Your task to perform on an android device: turn off improve location accuracy Image 0: 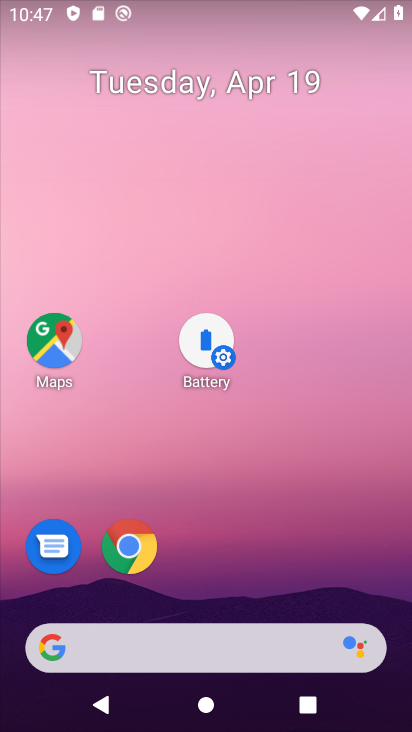
Step 0: drag from (190, 570) to (290, 86)
Your task to perform on an android device: turn off improve location accuracy Image 1: 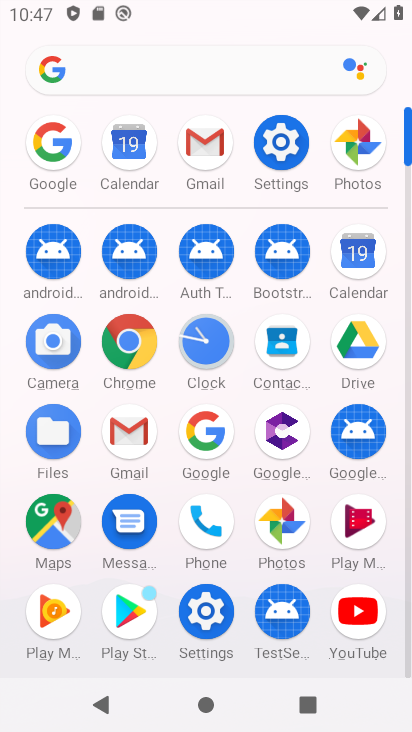
Step 1: click (280, 142)
Your task to perform on an android device: turn off improve location accuracy Image 2: 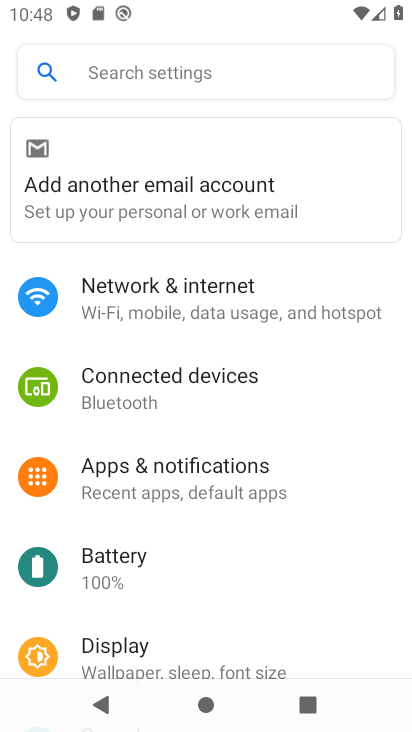
Step 2: drag from (148, 604) to (252, 87)
Your task to perform on an android device: turn off improve location accuracy Image 3: 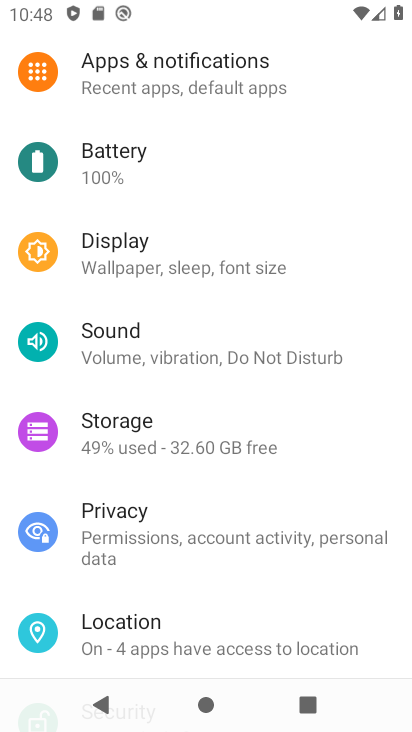
Step 3: click (125, 631)
Your task to perform on an android device: turn off improve location accuracy Image 4: 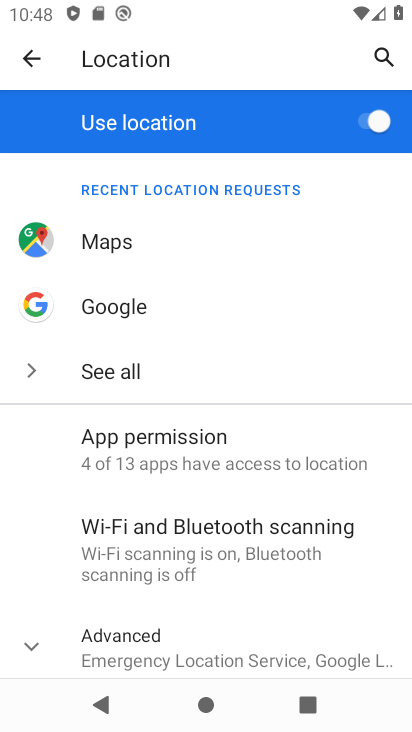
Step 4: drag from (172, 622) to (332, 151)
Your task to perform on an android device: turn off improve location accuracy Image 5: 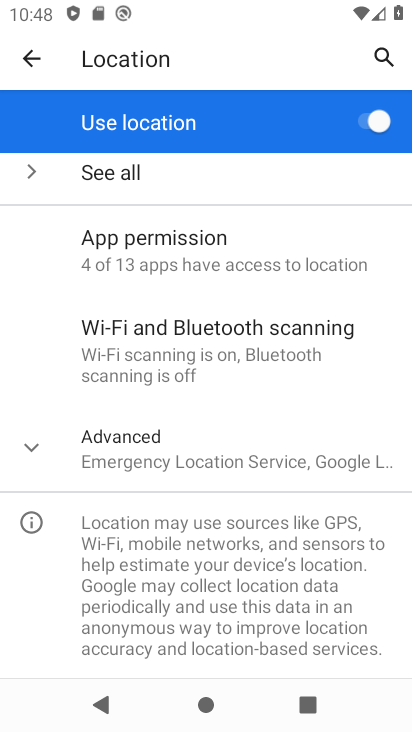
Step 5: click (174, 448)
Your task to perform on an android device: turn off improve location accuracy Image 6: 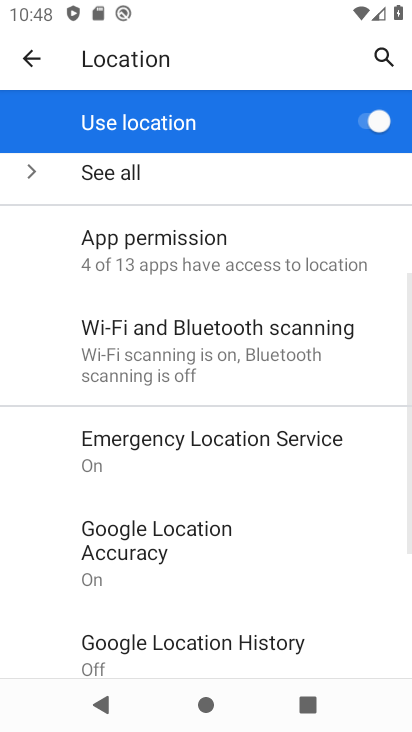
Step 6: drag from (206, 586) to (344, 129)
Your task to perform on an android device: turn off improve location accuracy Image 7: 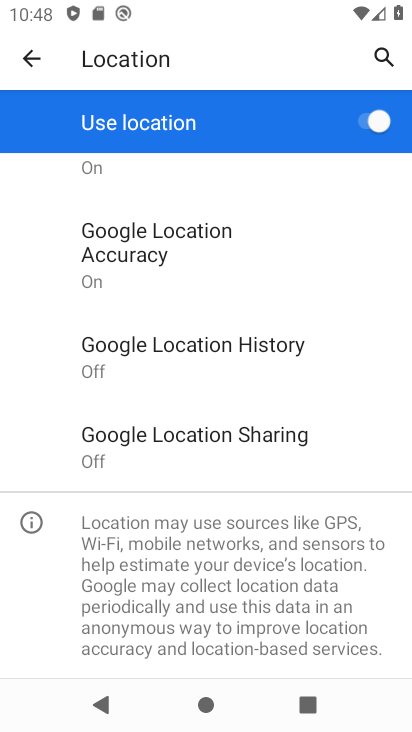
Step 7: click (169, 232)
Your task to perform on an android device: turn off improve location accuracy Image 8: 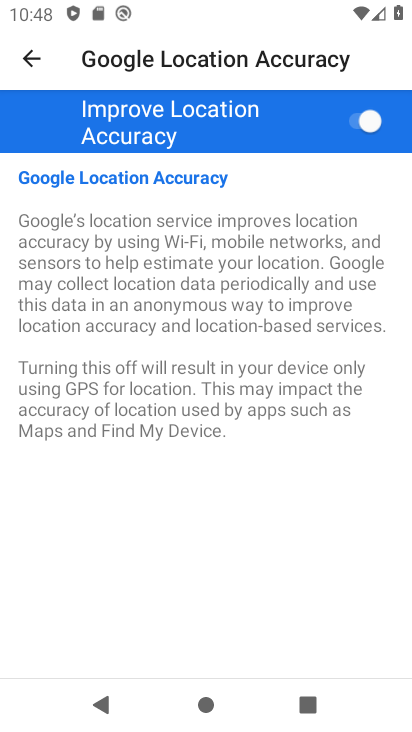
Step 8: click (355, 117)
Your task to perform on an android device: turn off improve location accuracy Image 9: 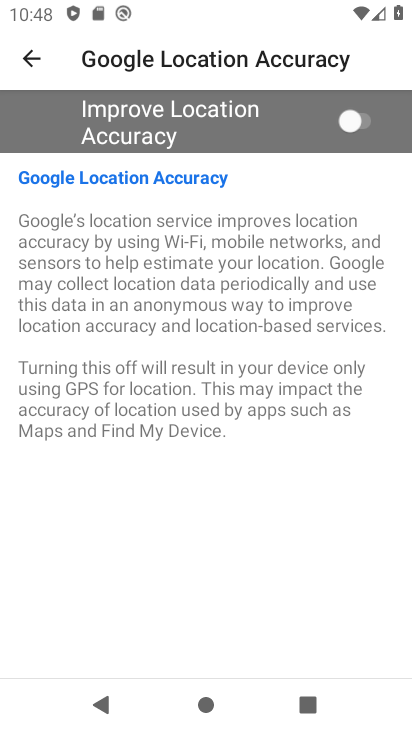
Step 9: task complete